Your task to perform on an android device: Open the calendar app, open the side menu, and click the "Day" option Image 0: 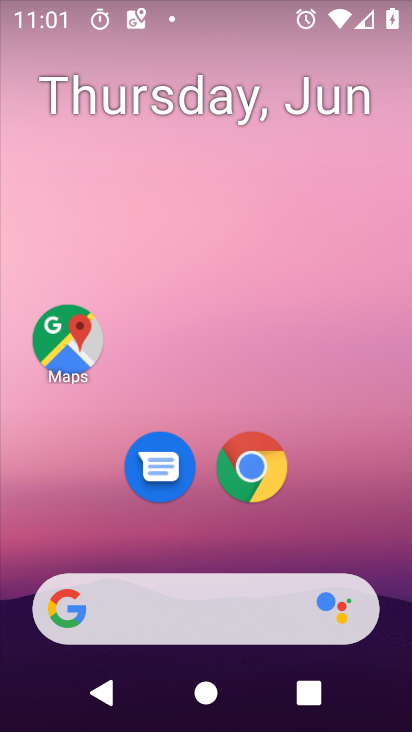
Step 0: press home button
Your task to perform on an android device: Open the calendar app, open the side menu, and click the "Day" option Image 1: 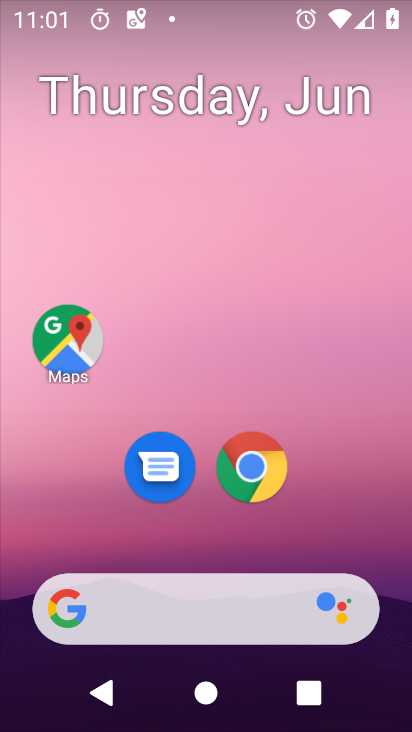
Step 1: drag from (26, 623) to (307, 185)
Your task to perform on an android device: Open the calendar app, open the side menu, and click the "Day" option Image 2: 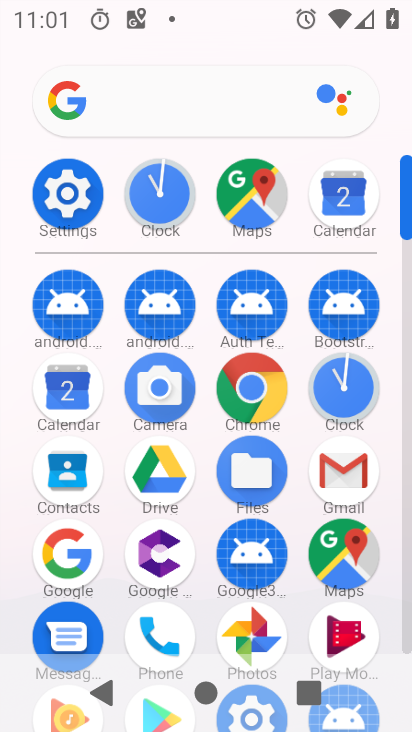
Step 2: click (61, 381)
Your task to perform on an android device: Open the calendar app, open the side menu, and click the "Day" option Image 3: 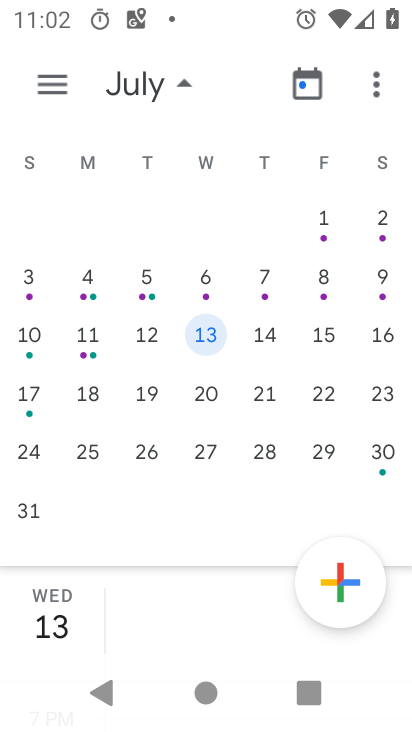
Step 3: task complete